Your task to perform on an android device: turn pop-ups on in chrome Image 0: 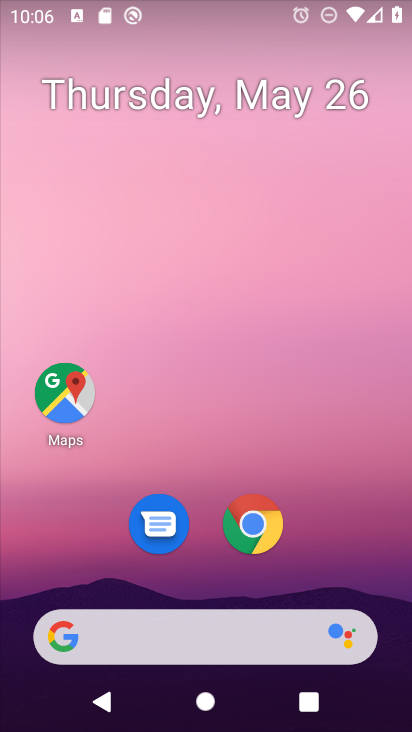
Step 0: click (258, 519)
Your task to perform on an android device: turn pop-ups on in chrome Image 1: 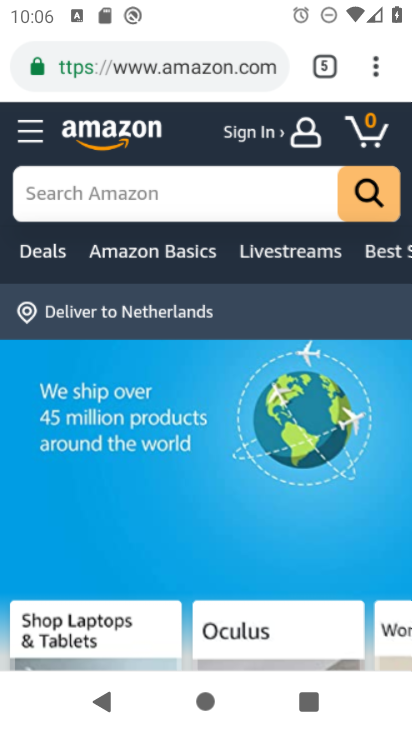
Step 1: click (353, 219)
Your task to perform on an android device: turn pop-ups on in chrome Image 2: 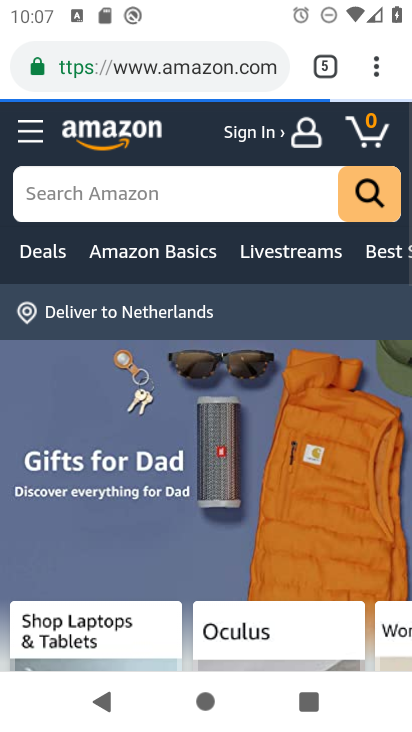
Step 2: click (377, 64)
Your task to perform on an android device: turn pop-ups on in chrome Image 3: 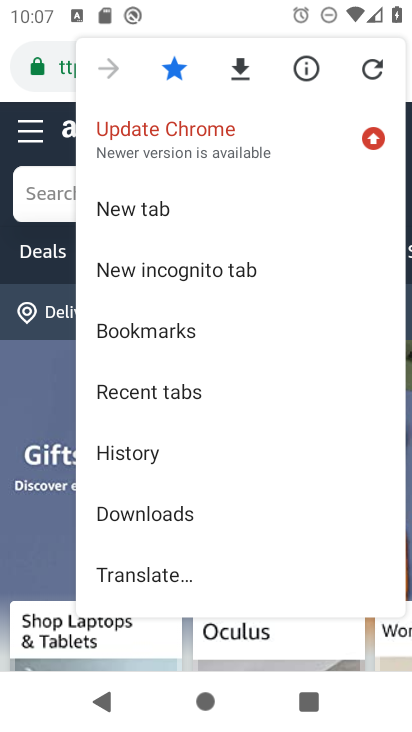
Step 3: drag from (230, 481) to (250, 130)
Your task to perform on an android device: turn pop-ups on in chrome Image 4: 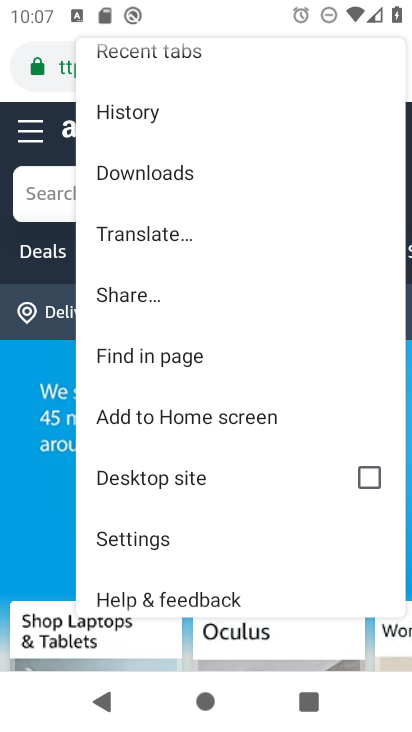
Step 4: click (175, 541)
Your task to perform on an android device: turn pop-ups on in chrome Image 5: 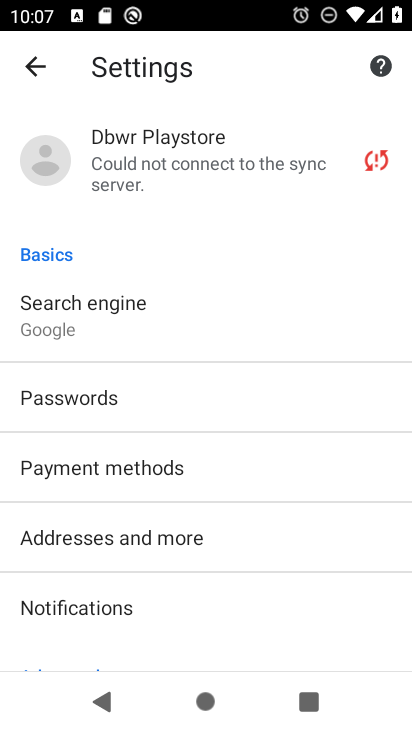
Step 5: drag from (233, 523) to (242, 145)
Your task to perform on an android device: turn pop-ups on in chrome Image 6: 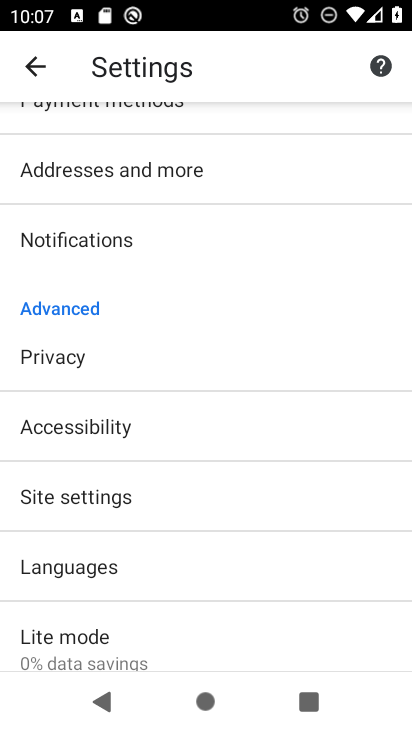
Step 6: click (206, 502)
Your task to perform on an android device: turn pop-ups on in chrome Image 7: 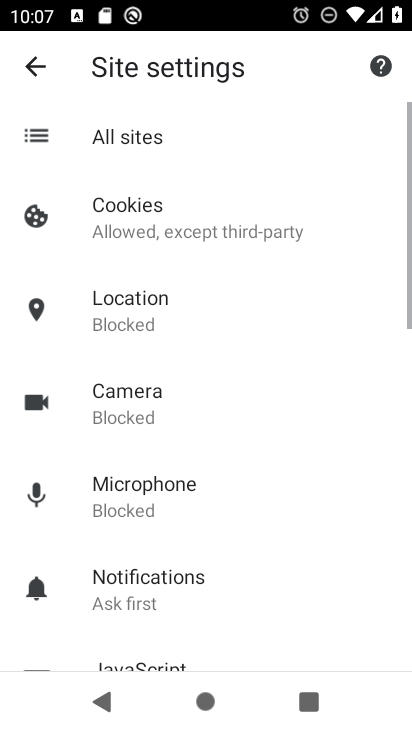
Step 7: drag from (252, 563) to (243, 200)
Your task to perform on an android device: turn pop-ups on in chrome Image 8: 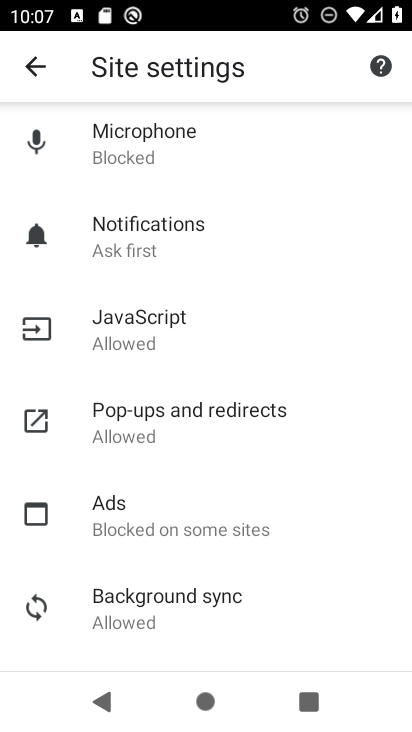
Step 8: click (225, 415)
Your task to perform on an android device: turn pop-ups on in chrome Image 9: 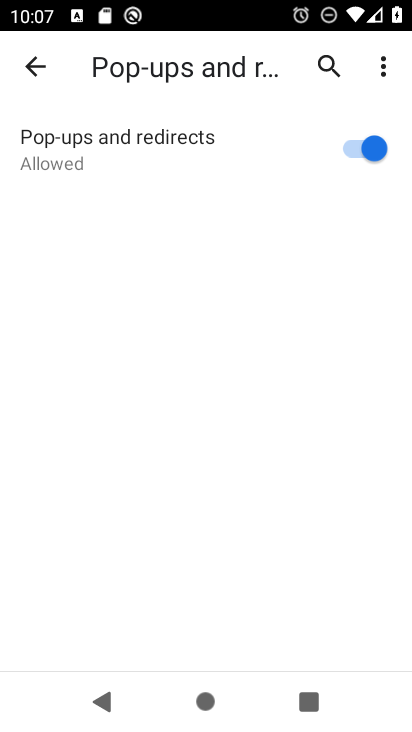
Step 9: task complete